Your task to perform on an android device: Search for pizza restaurants on Maps Image 0: 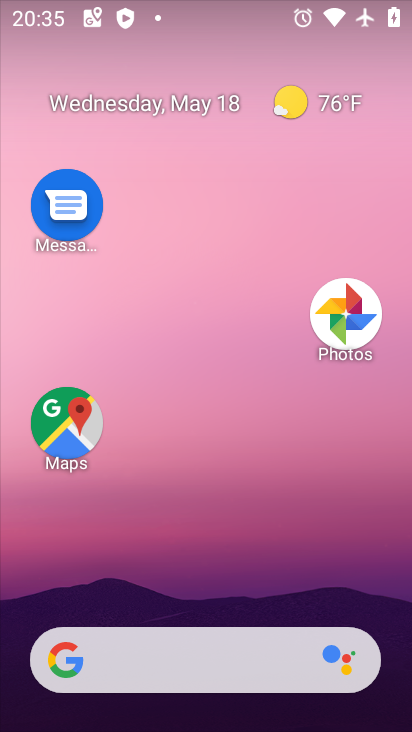
Step 0: drag from (193, 622) to (227, 11)
Your task to perform on an android device: Search for pizza restaurants on Maps Image 1: 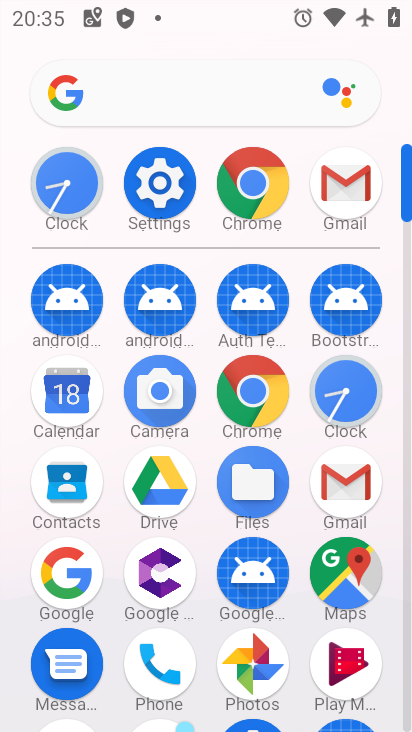
Step 1: click (368, 557)
Your task to perform on an android device: Search for pizza restaurants on Maps Image 2: 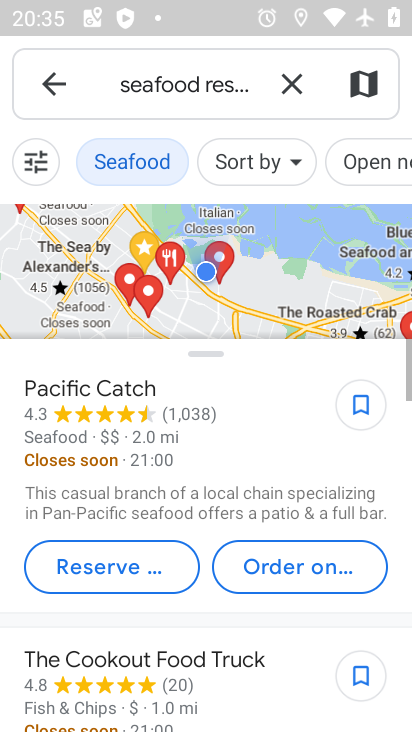
Step 2: click (292, 87)
Your task to perform on an android device: Search for pizza restaurants on Maps Image 3: 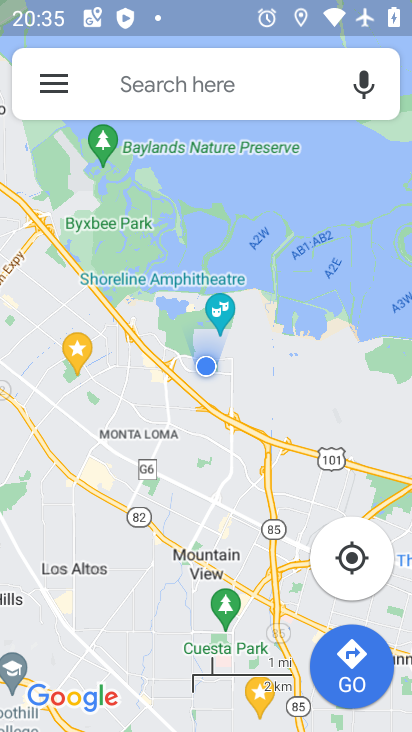
Step 3: click (133, 100)
Your task to perform on an android device: Search for pizza restaurants on Maps Image 4: 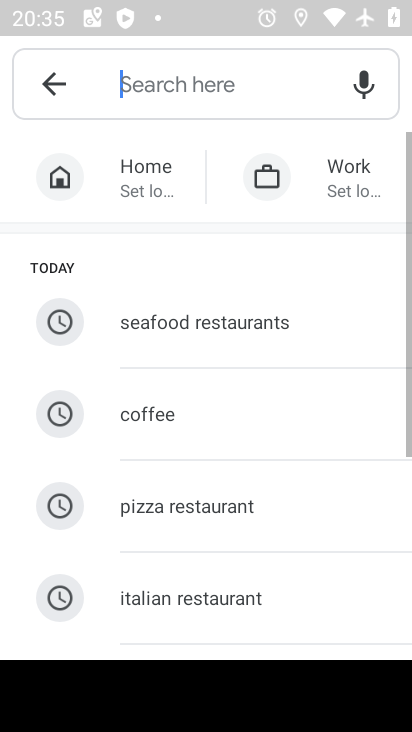
Step 4: click (185, 510)
Your task to perform on an android device: Search for pizza restaurants on Maps Image 5: 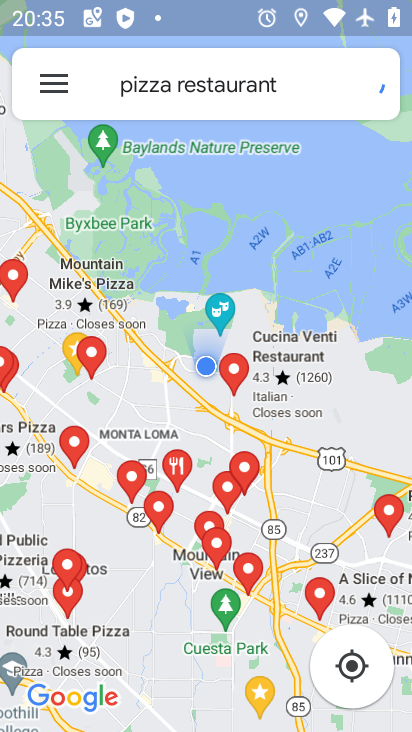
Step 5: task complete